Your task to perform on an android device: Add "macbook air" to the cart on amazon.com, then select checkout. Image 0: 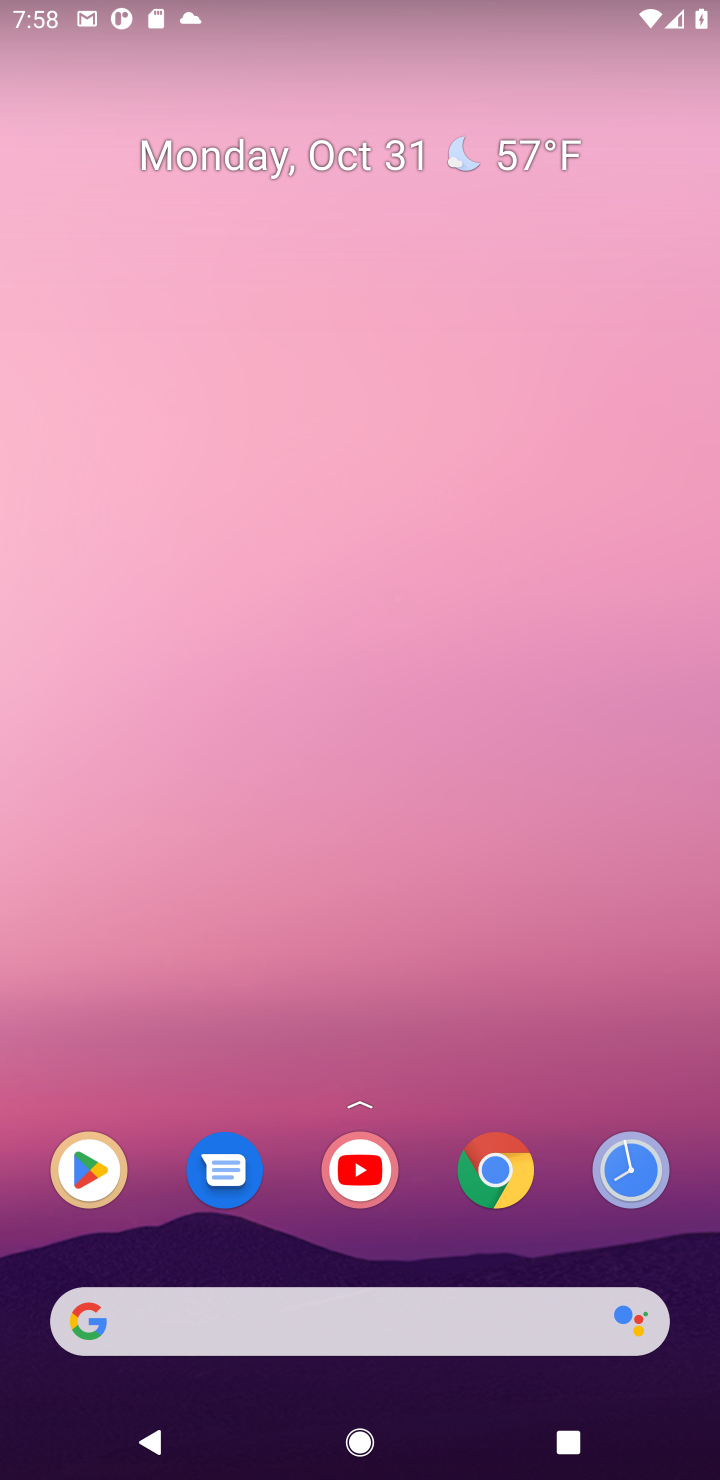
Step 0: click (511, 1175)
Your task to perform on an android device: Add "macbook air" to the cart on amazon.com, then select checkout. Image 1: 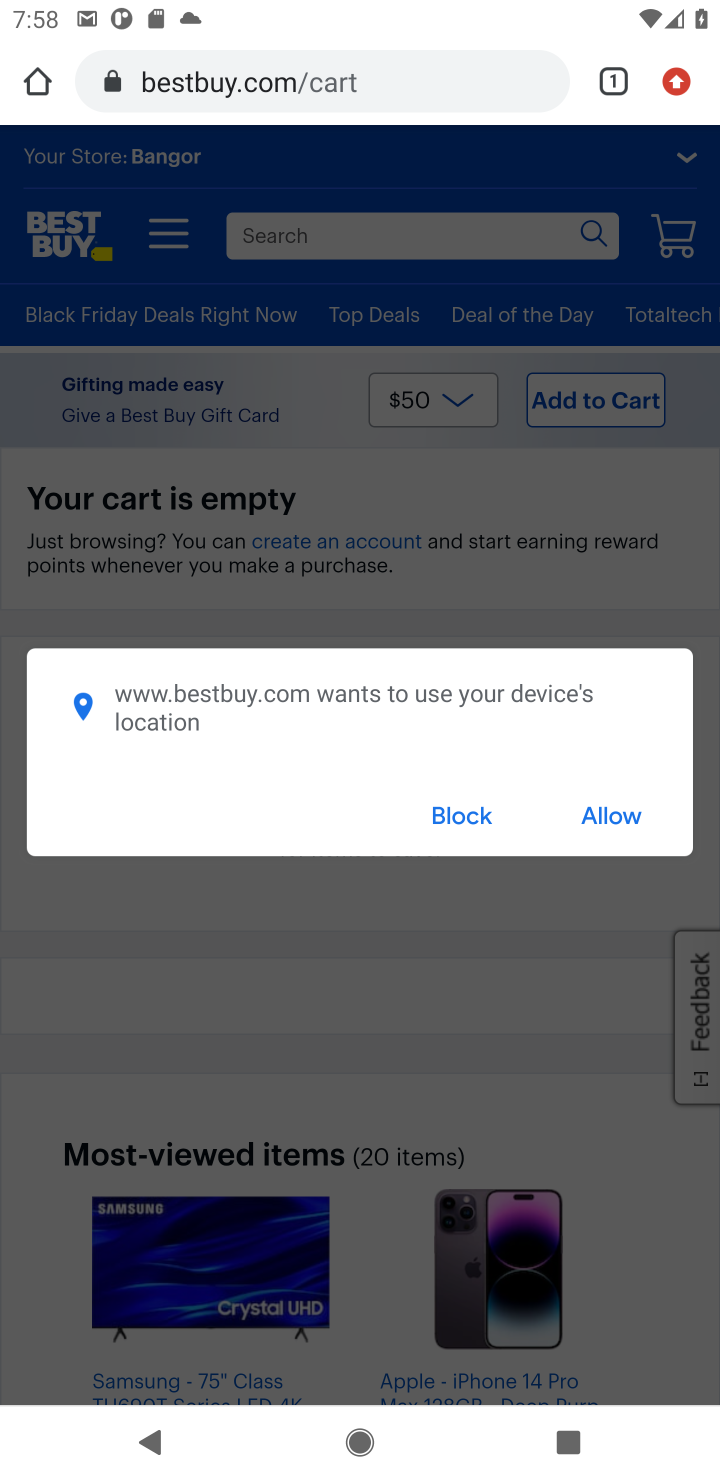
Step 1: click (242, 74)
Your task to perform on an android device: Add "macbook air" to the cart on amazon.com, then select checkout. Image 2: 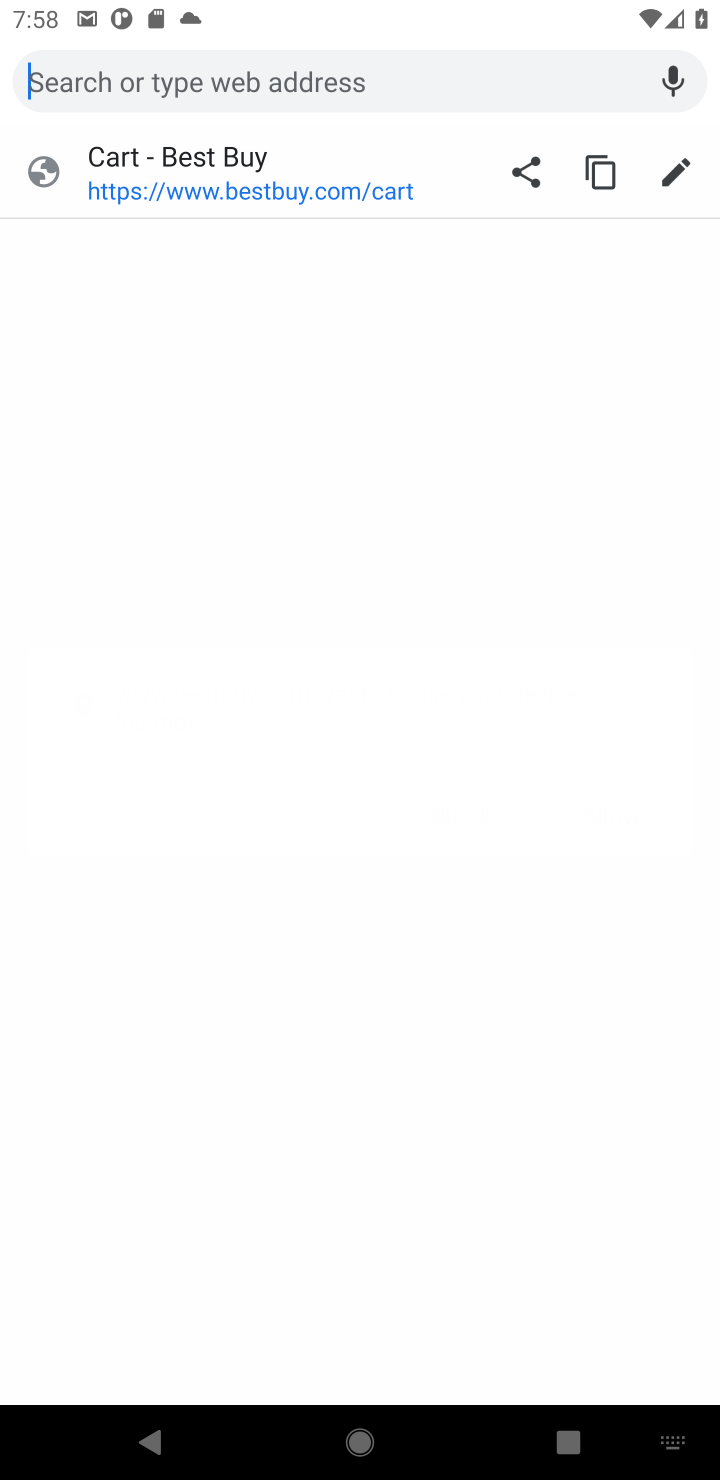
Step 2: type "amazon"
Your task to perform on an android device: Add "macbook air" to the cart on amazon.com, then select checkout. Image 3: 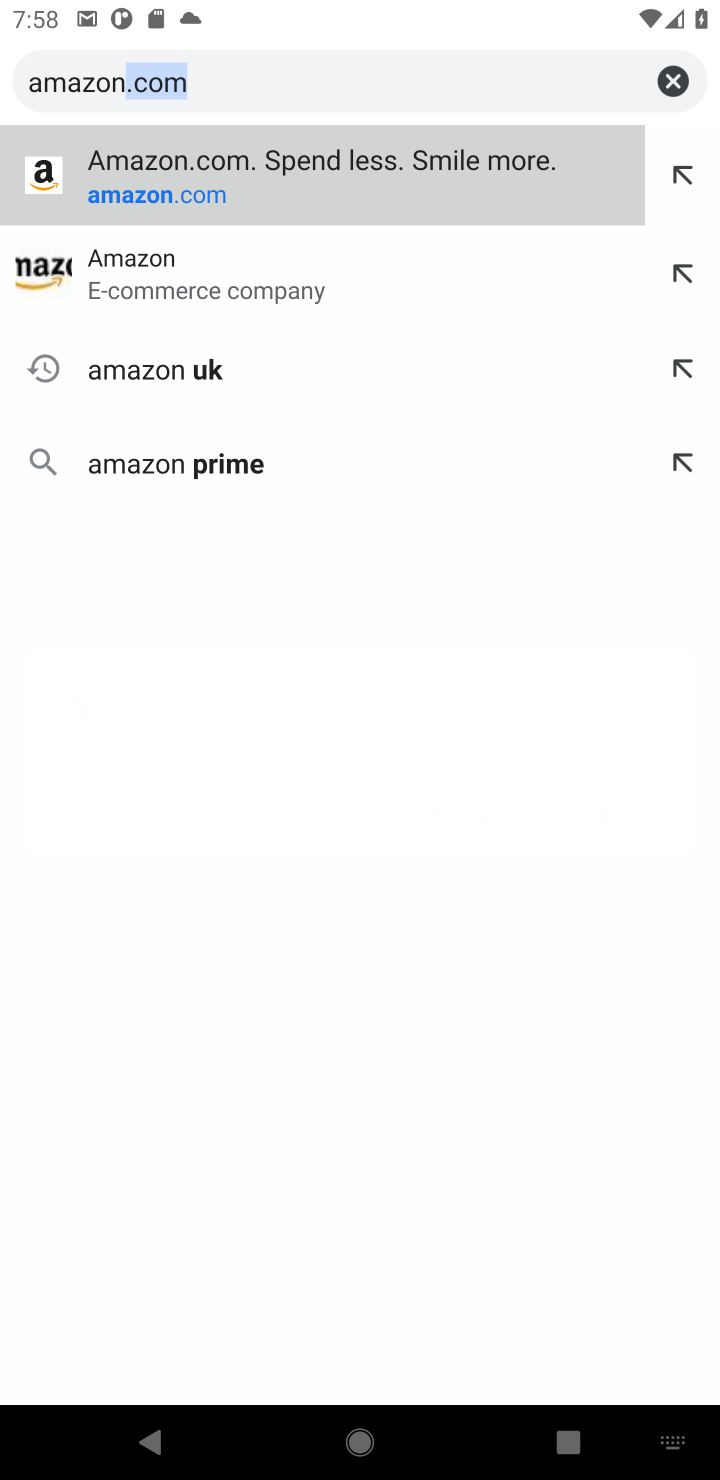
Step 3: click (214, 161)
Your task to perform on an android device: Add "macbook air" to the cart on amazon.com, then select checkout. Image 4: 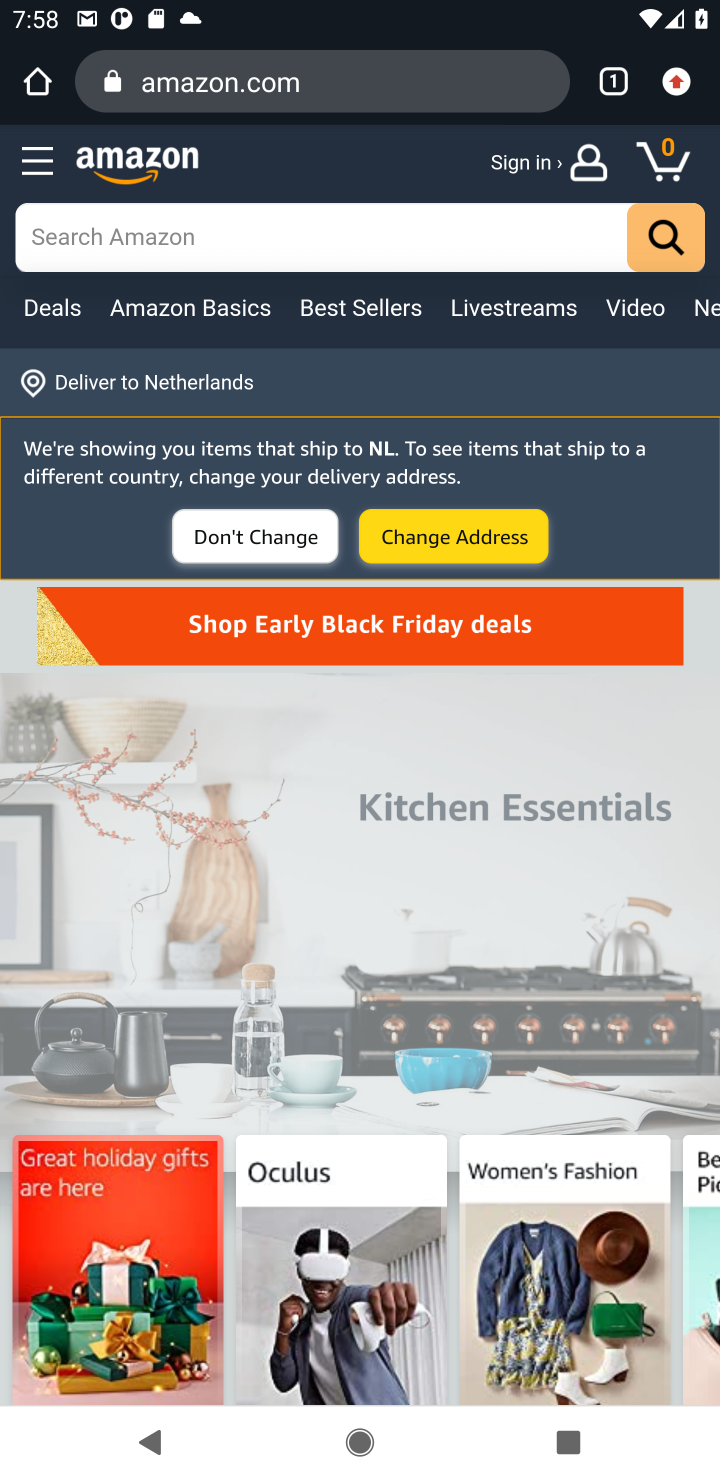
Step 4: click (196, 249)
Your task to perform on an android device: Add "macbook air" to the cart on amazon.com, then select checkout. Image 5: 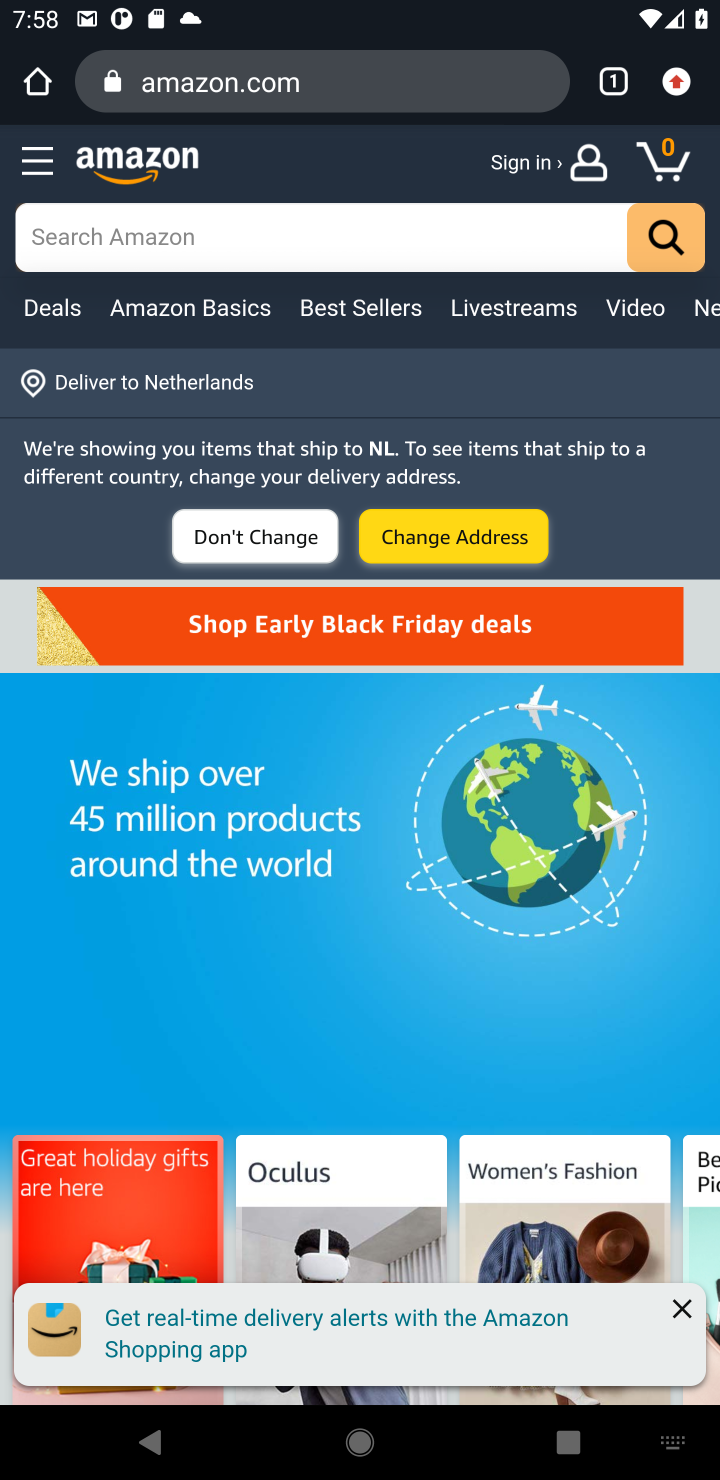
Step 5: type "macbook air"
Your task to perform on an android device: Add "macbook air" to the cart on amazon.com, then select checkout. Image 6: 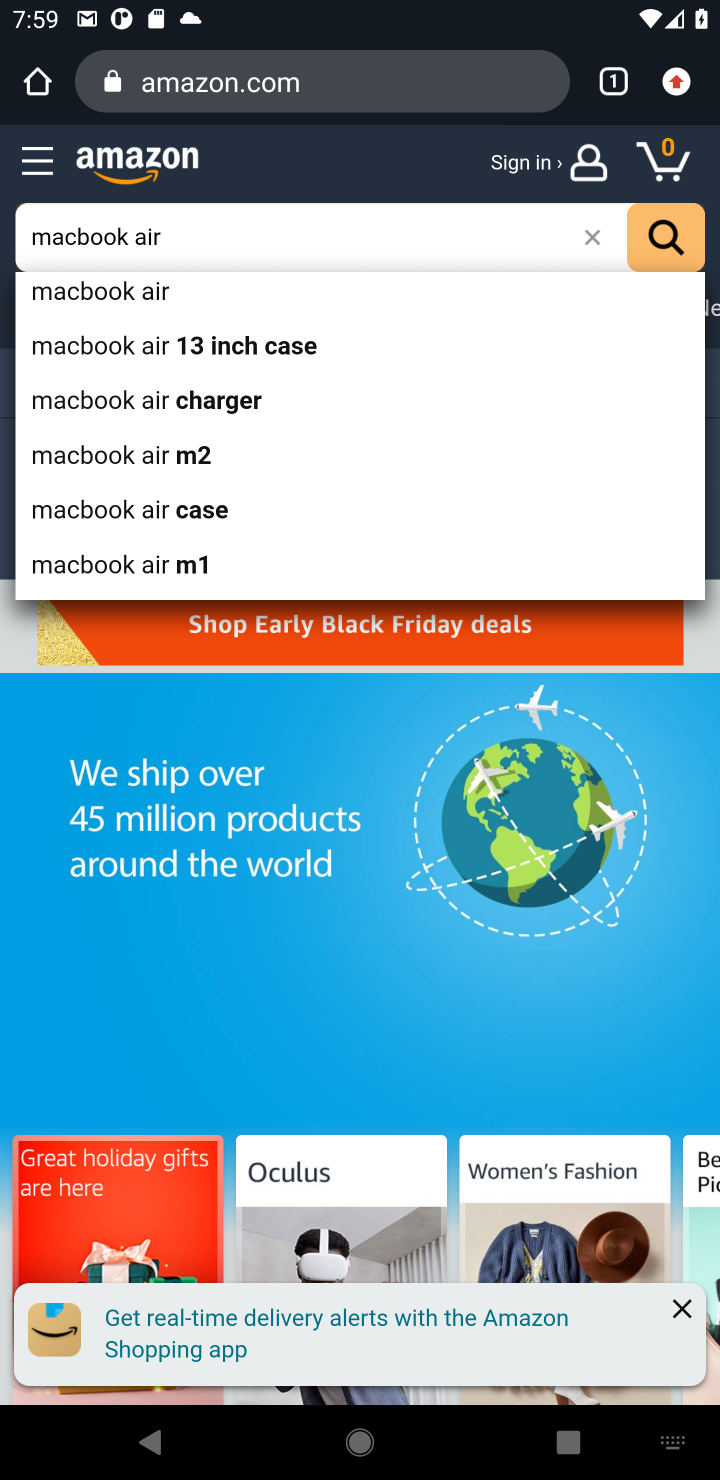
Step 6: click (675, 241)
Your task to perform on an android device: Add "macbook air" to the cart on amazon.com, then select checkout. Image 7: 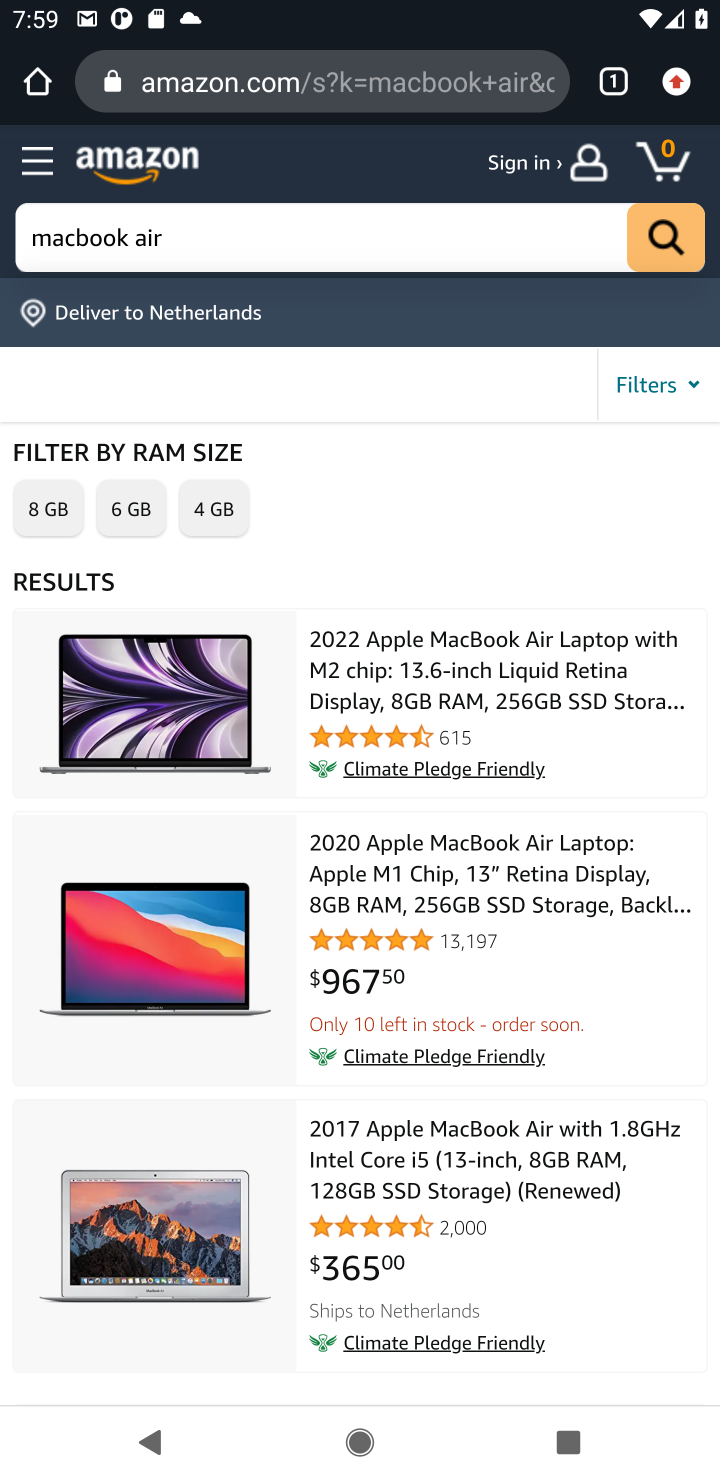
Step 7: click (136, 717)
Your task to perform on an android device: Add "macbook air" to the cart on amazon.com, then select checkout. Image 8: 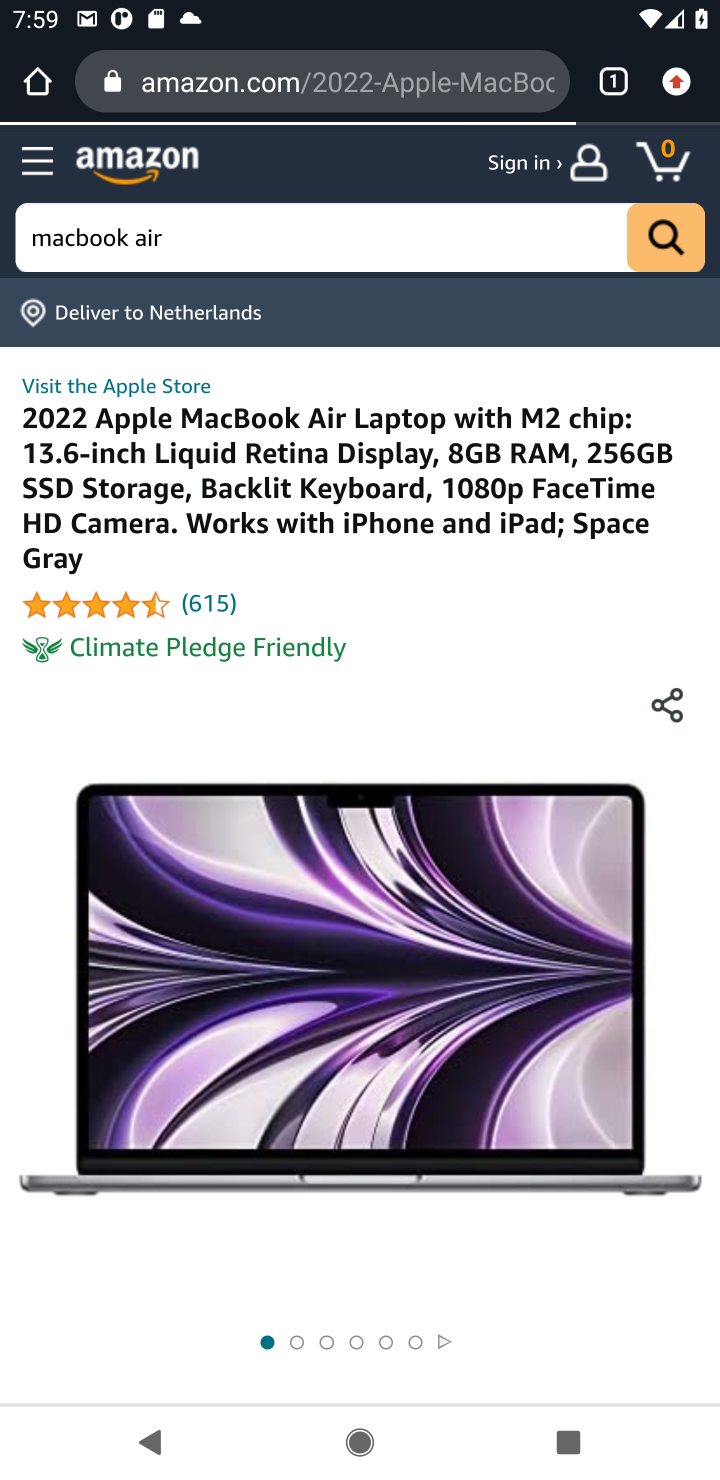
Step 8: drag from (386, 1253) to (448, 378)
Your task to perform on an android device: Add "macbook air" to the cart on amazon.com, then select checkout. Image 9: 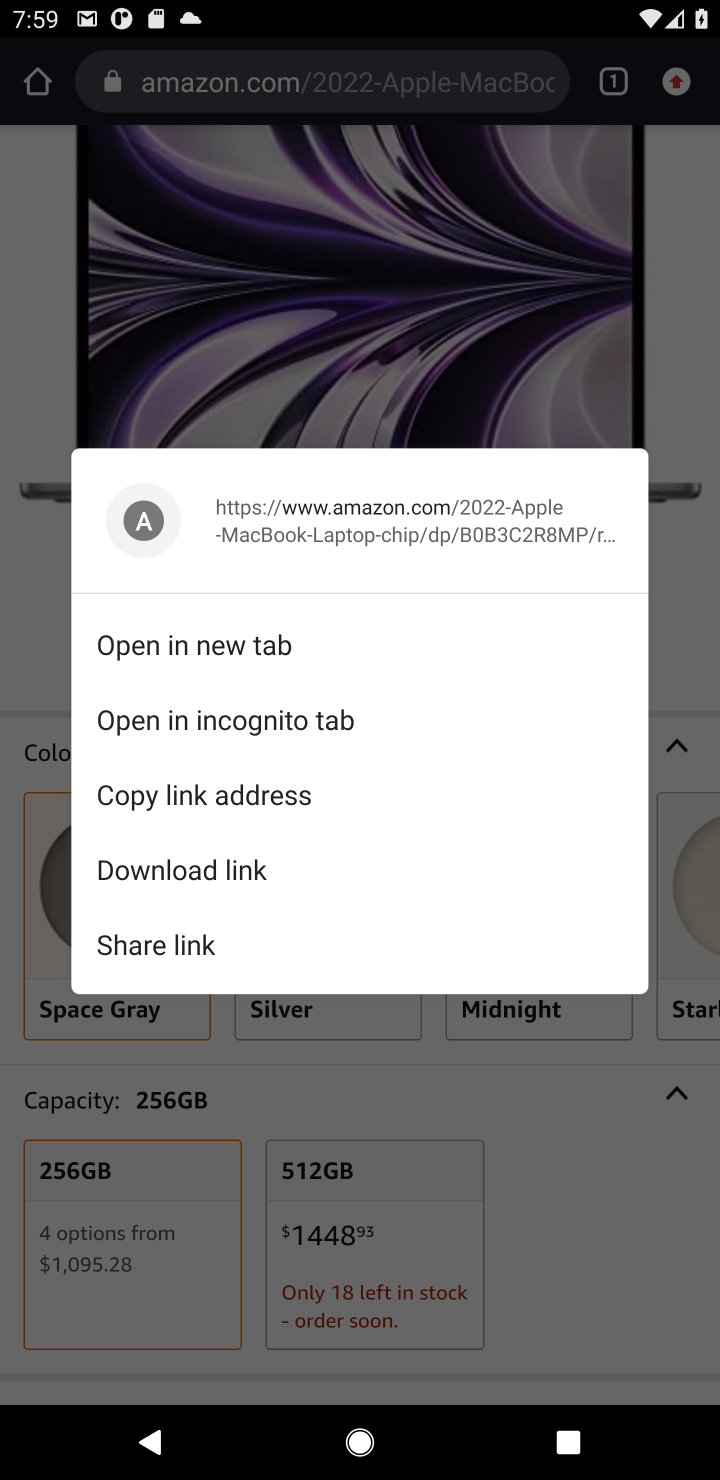
Step 9: click (559, 1091)
Your task to perform on an android device: Add "macbook air" to the cart on amazon.com, then select checkout. Image 10: 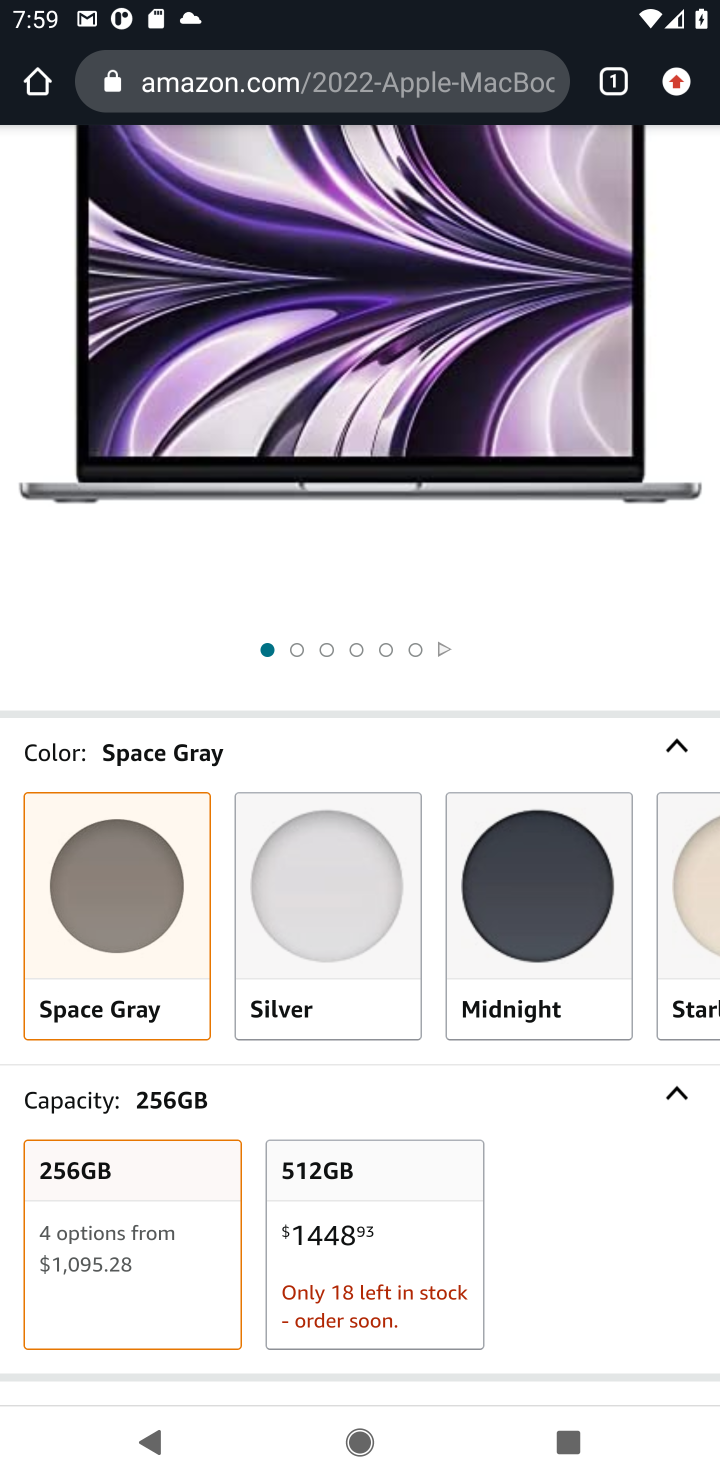
Step 10: drag from (554, 1242) to (391, 257)
Your task to perform on an android device: Add "macbook air" to the cart on amazon.com, then select checkout. Image 11: 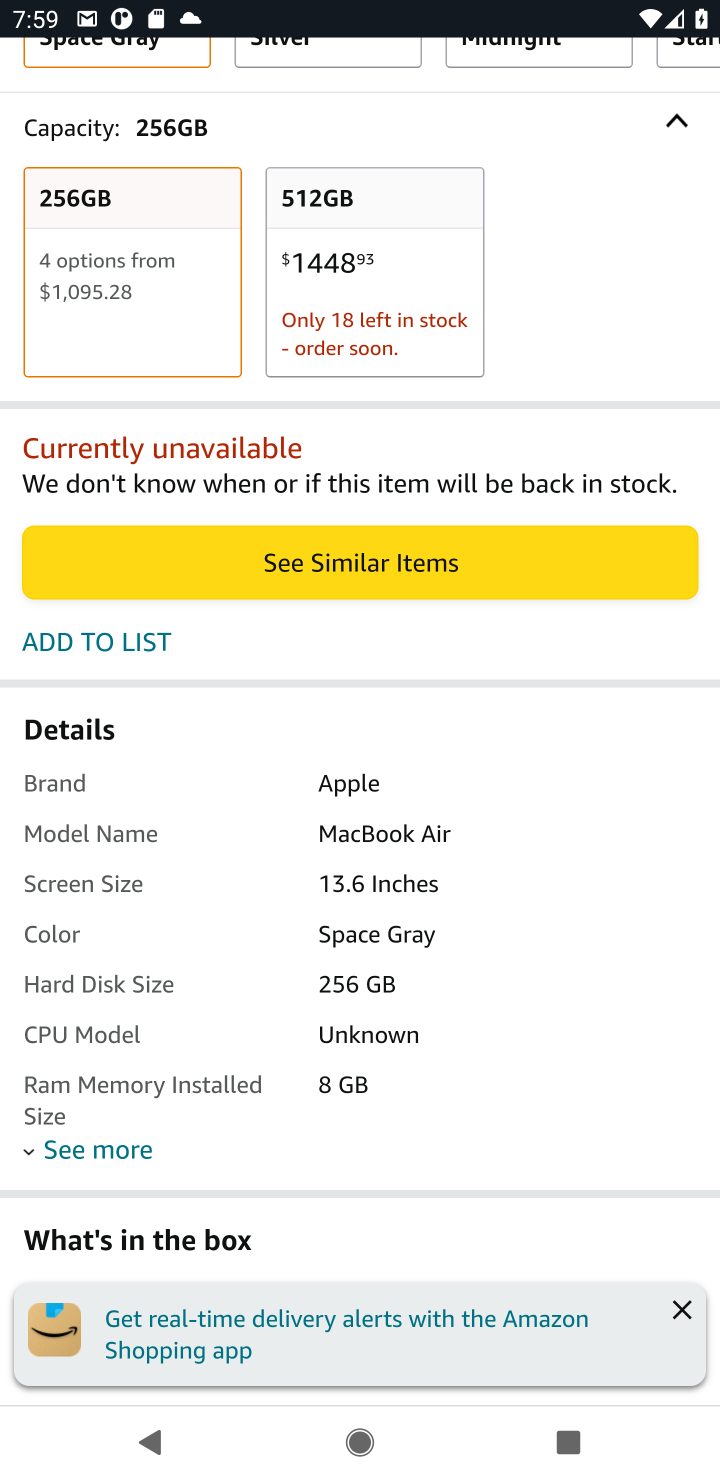
Step 11: click (446, 550)
Your task to perform on an android device: Add "macbook air" to the cart on amazon.com, then select checkout. Image 12: 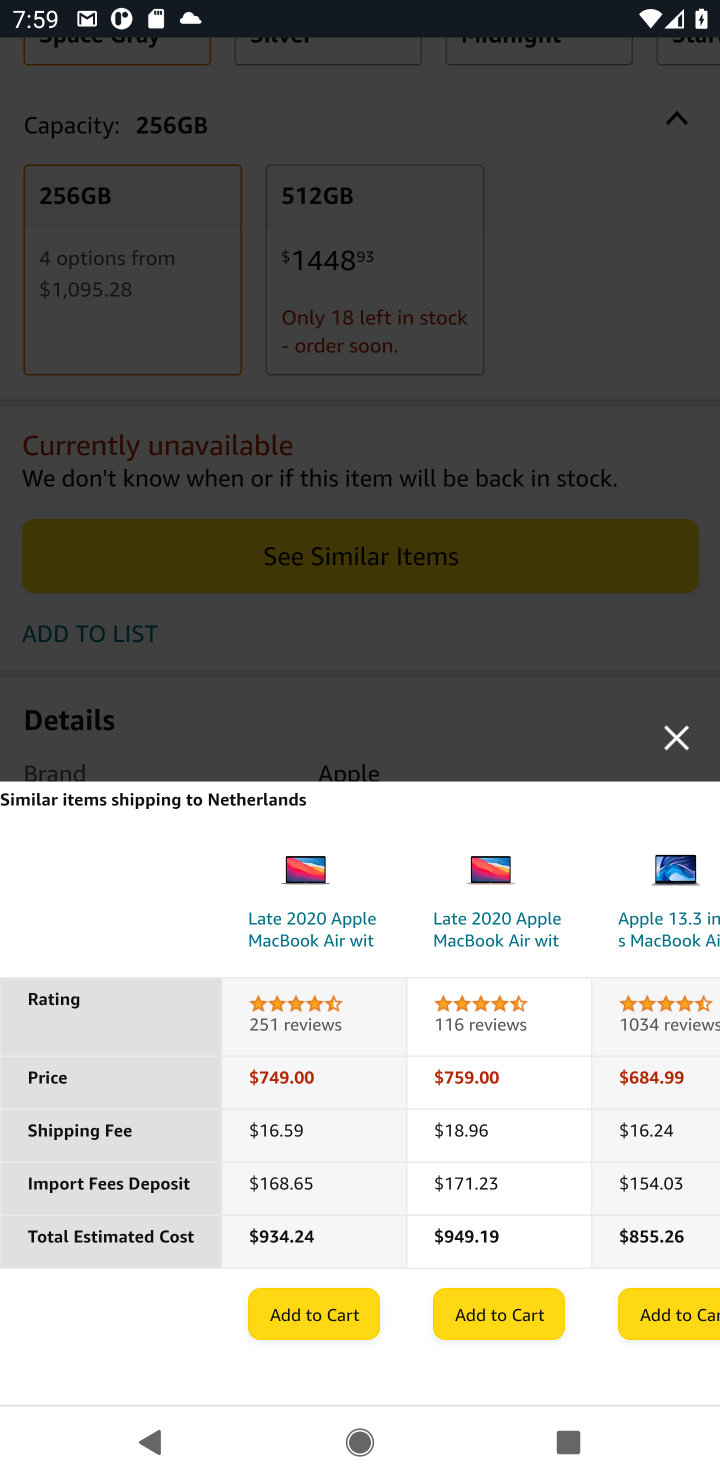
Step 12: click (301, 1328)
Your task to perform on an android device: Add "macbook air" to the cart on amazon.com, then select checkout. Image 13: 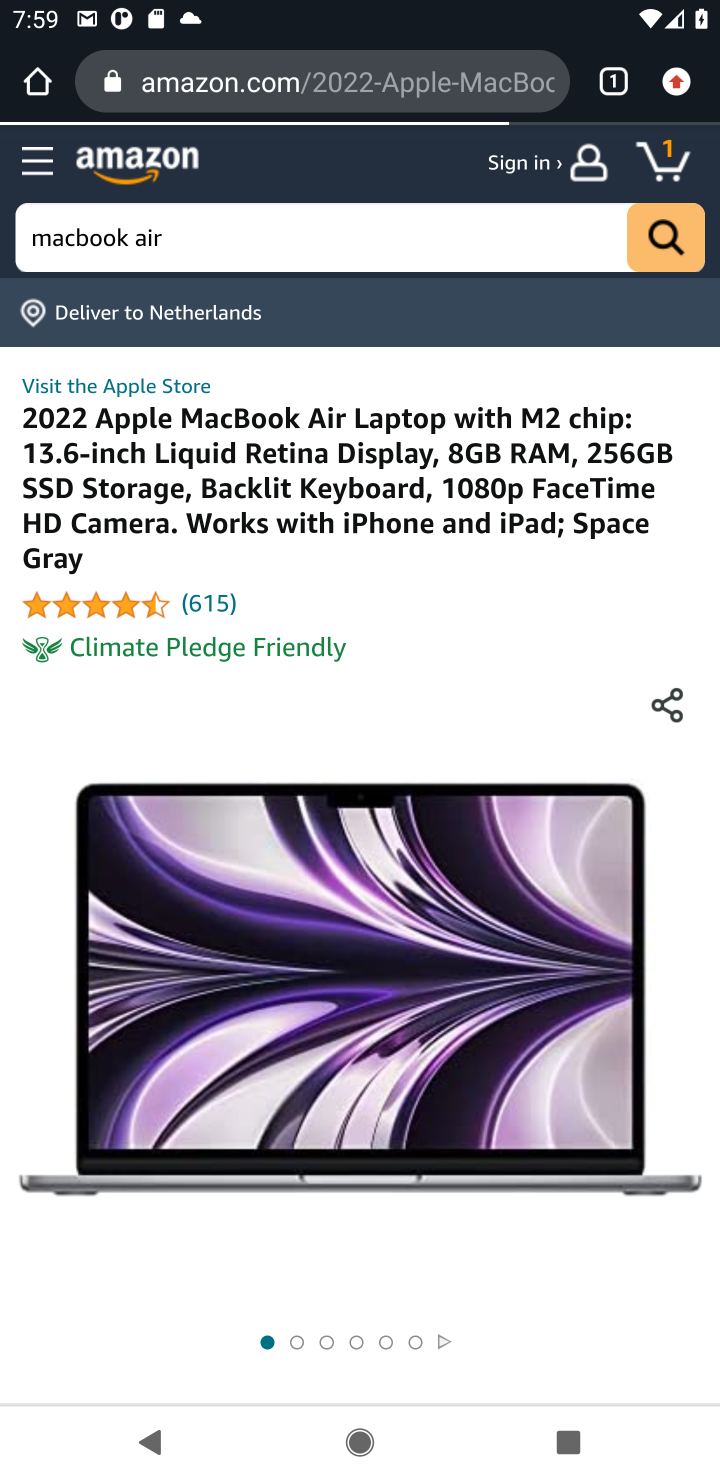
Step 13: click (670, 156)
Your task to perform on an android device: Add "macbook air" to the cart on amazon.com, then select checkout. Image 14: 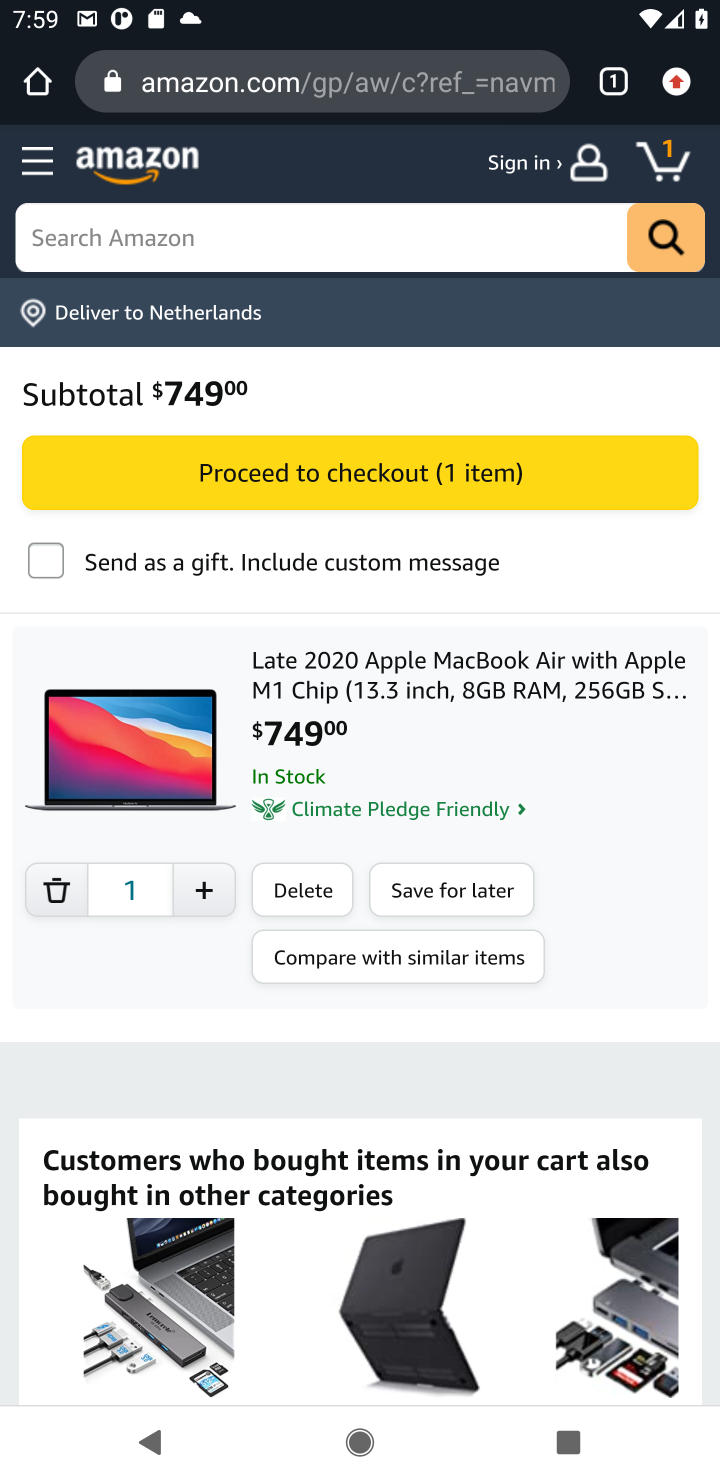
Step 14: click (308, 477)
Your task to perform on an android device: Add "macbook air" to the cart on amazon.com, then select checkout. Image 15: 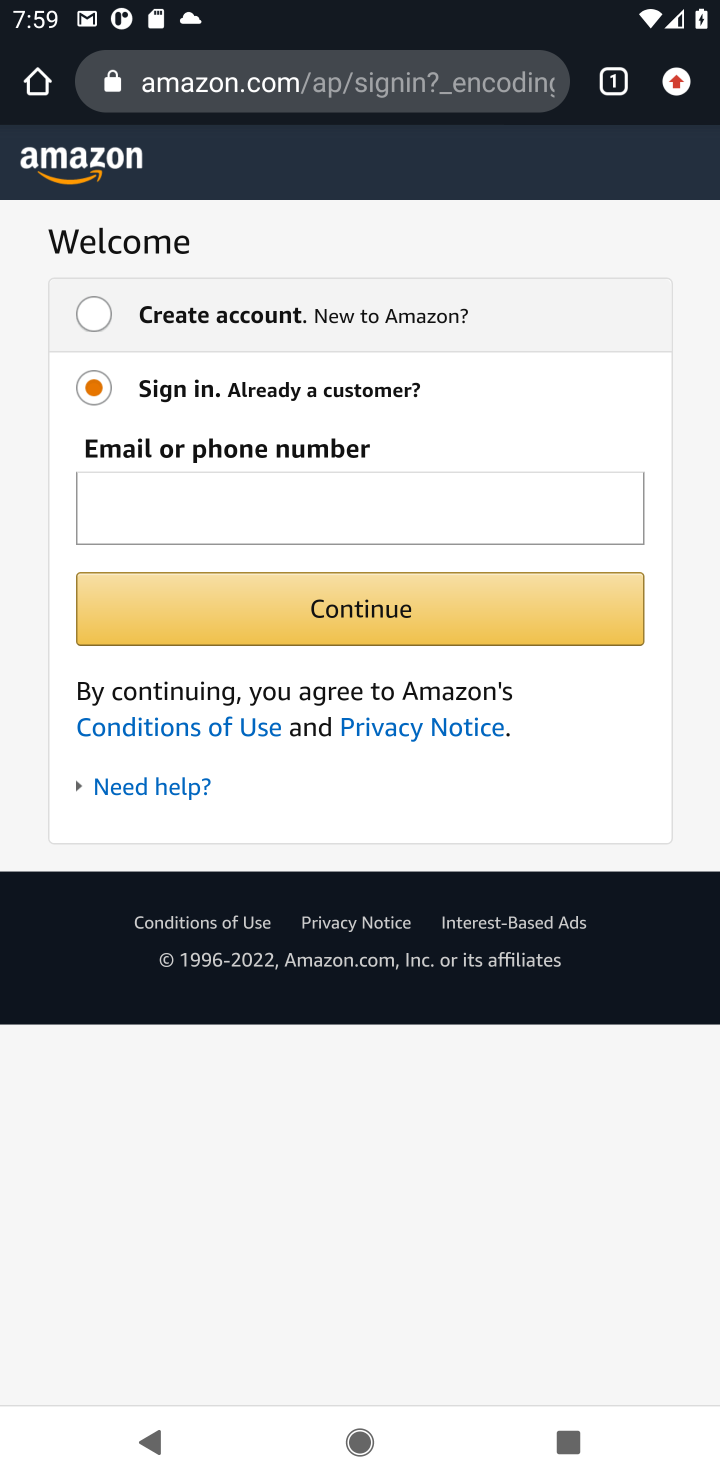
Step 15: task complete